Your task to perform on an android device: Open battery settings Image 0: 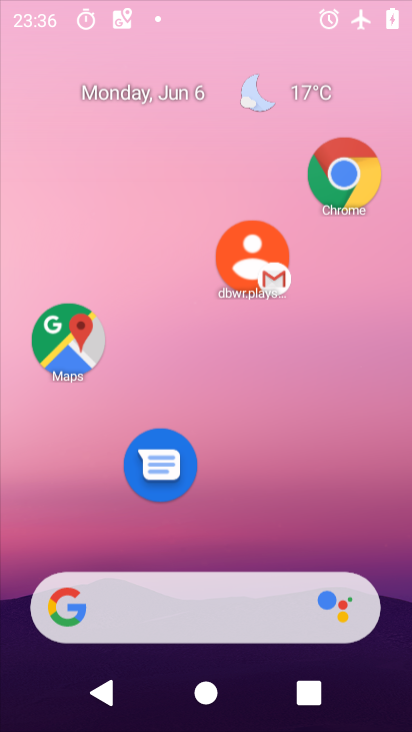
Step 0: click (278, 27)
Your task to perform on an android device: Open battery settings Image 1: 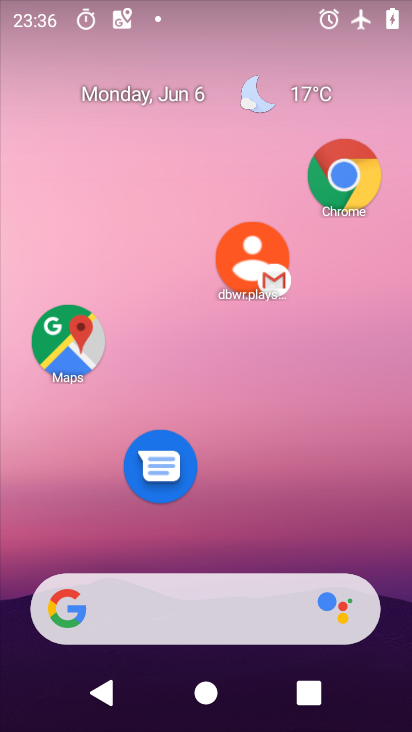
Step 1: drag from (220, 511) to (208, 86)
Your task to perform on an android device: Open battery settings Image 2: 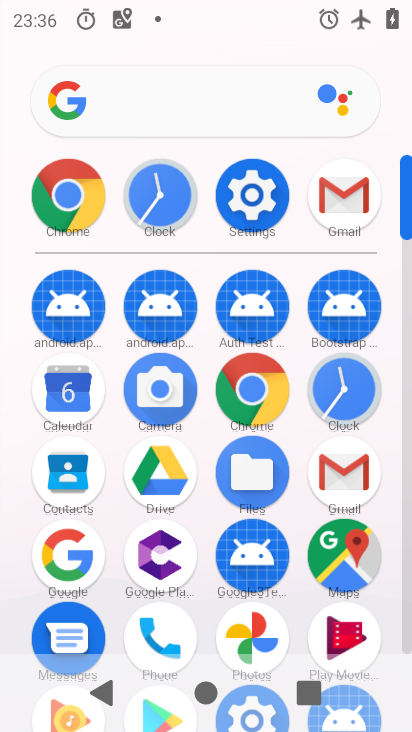
Step 2: click (248, 200)
Your task to perform on an android device: Open battery settings Image 3: 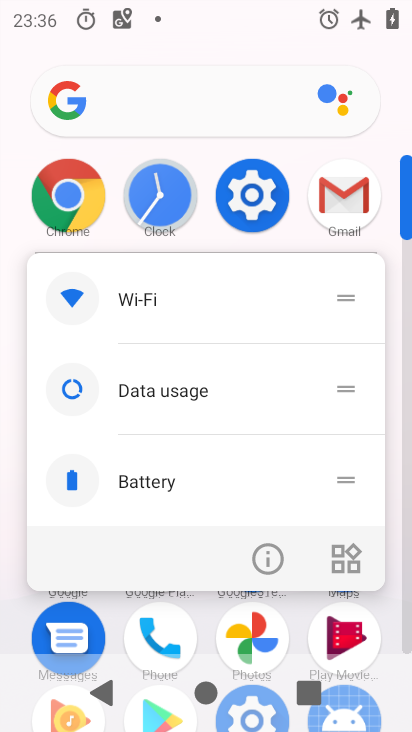
Step 3: click (280, 546)
Your task to perform on an android device: Open battery settings Image 4: 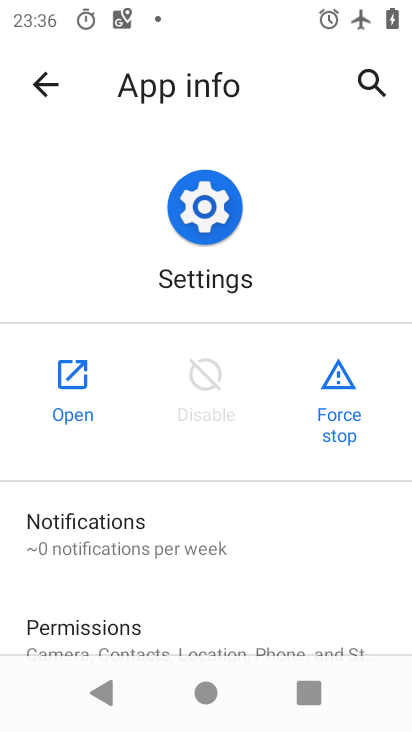
Step 4: click (90, 387)
Your task to perform on an android device: Open battery settings Image 5: 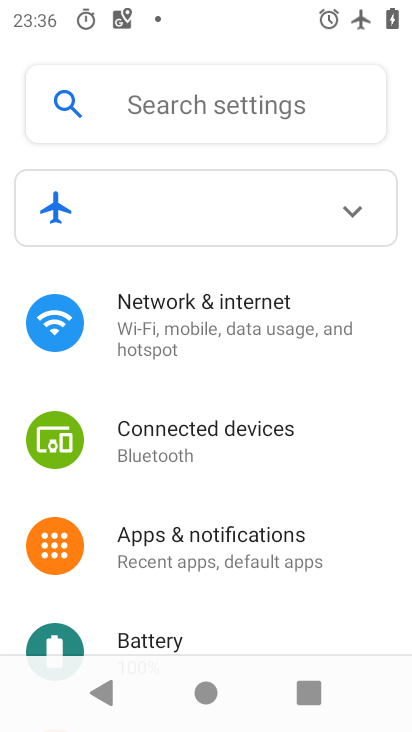
Step 5: drag from (272, 567) to (341, 114)
Your task to perform on an android device: Open battery settings Image 6: 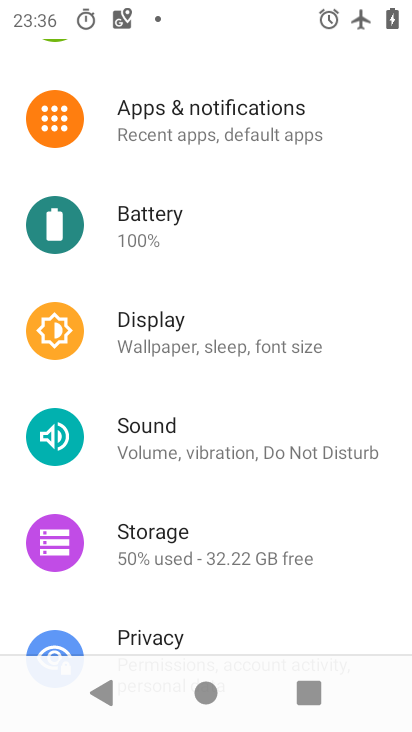
Step 6: click (188, 239)
Your task to perform on an android device: Open battery settings Image 7: 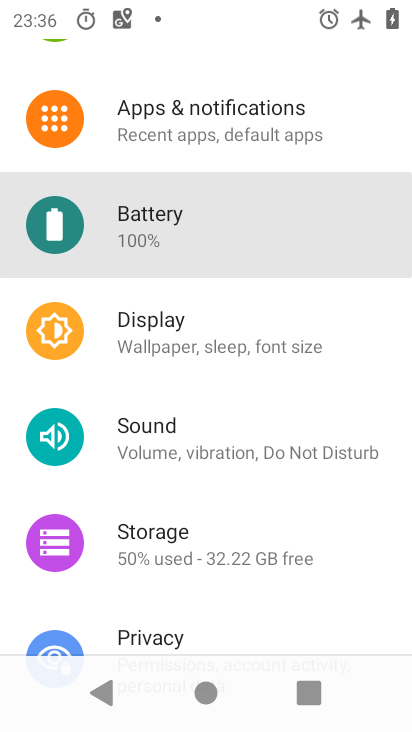
Step 7: click (188, 239)
Your task to perform on an android device: Open battery settings Image 8: 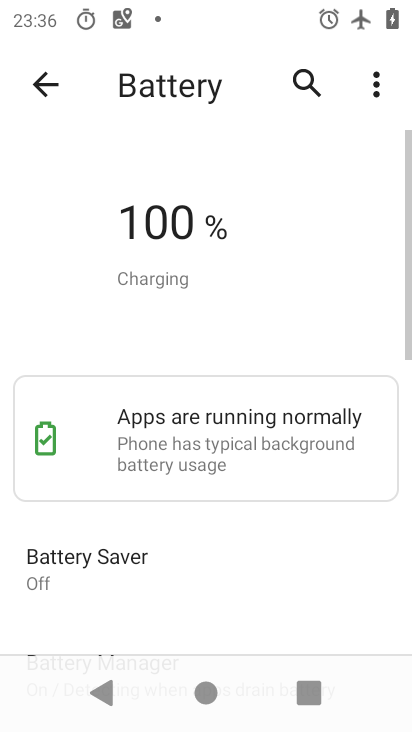
Step 8: task complete